Your task to perform on an android device: Check the news Image 0: 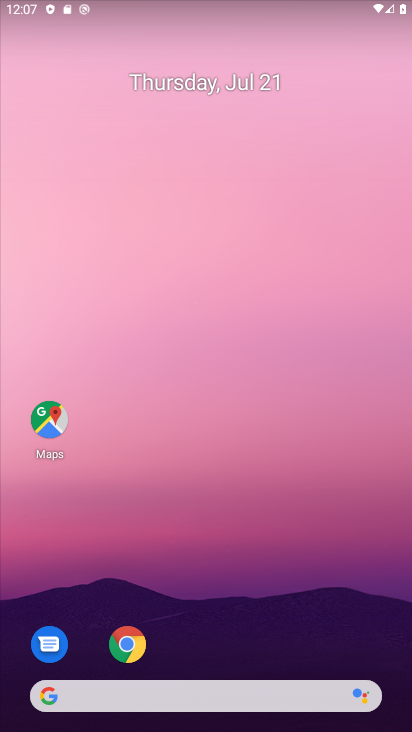
Step 0: click (114, 650)
Your task to perform on an android device: Check the news Image 1: 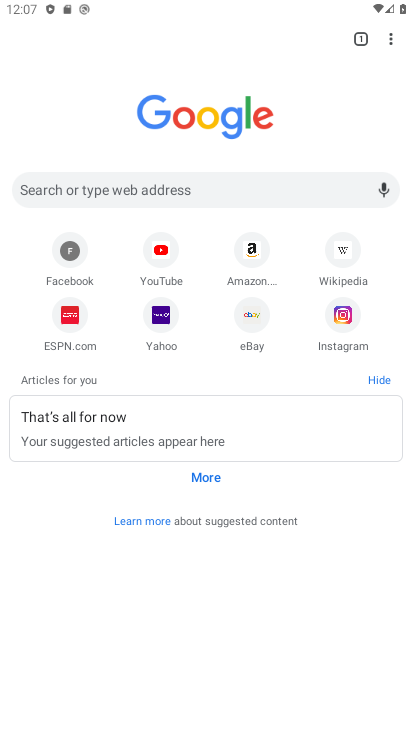
Step 1: click (170, 192)
Your task to perform on an android device: Check the news Image 2: 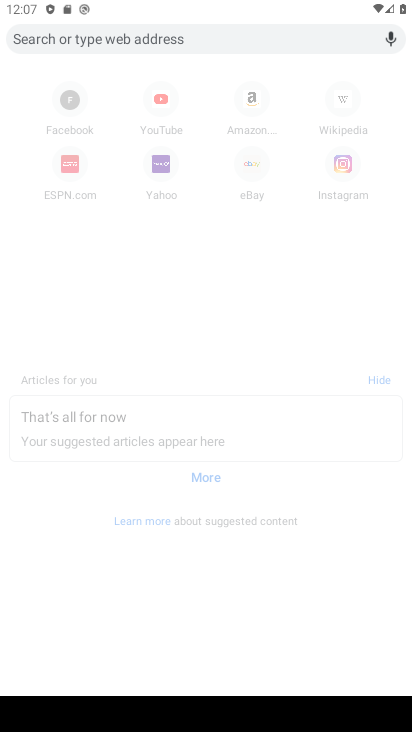
Step 2: type "Check the news"
Your task to perform on an android device: Check the news Image 3: 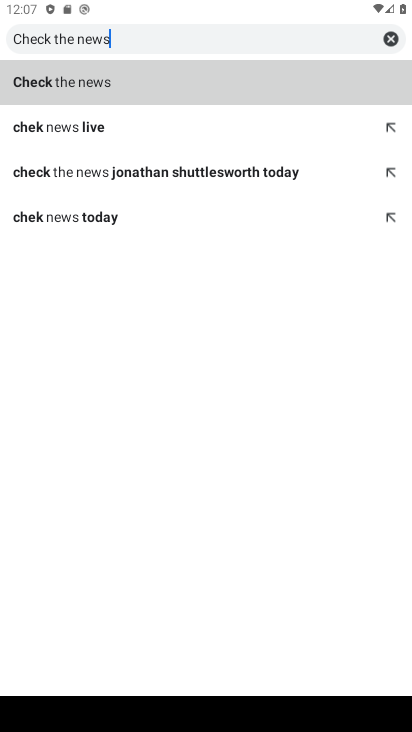
Step 3: type ""
Your task to perform on an android device: Check the news Image 4: 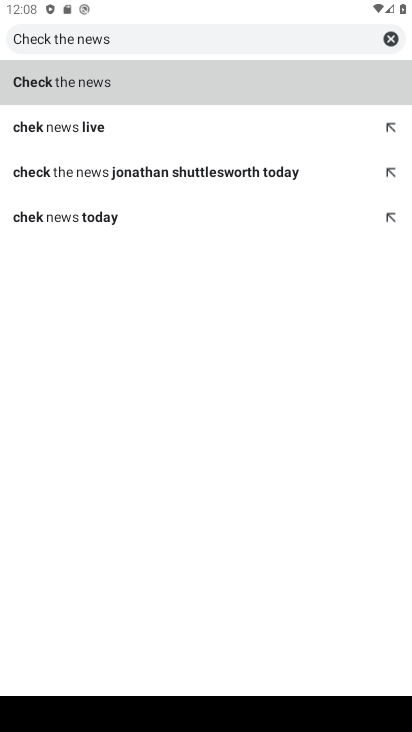
Step 4: click (50, 93)
Your task to perform on an android device: Check the news Image 5: 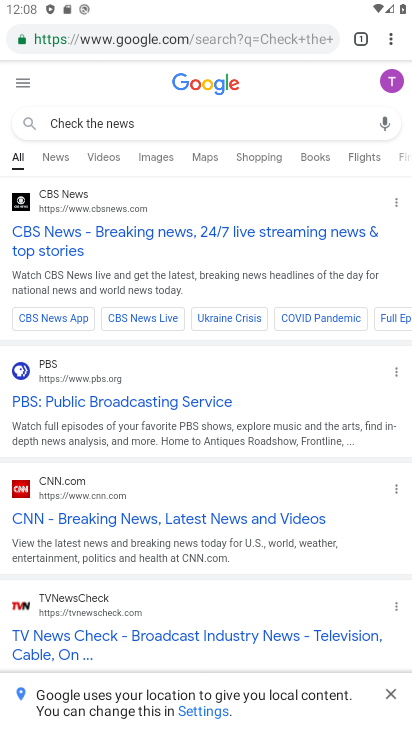
Step 5: task complete